Your task to perform on an android device: When is my next meeting? Image 0: 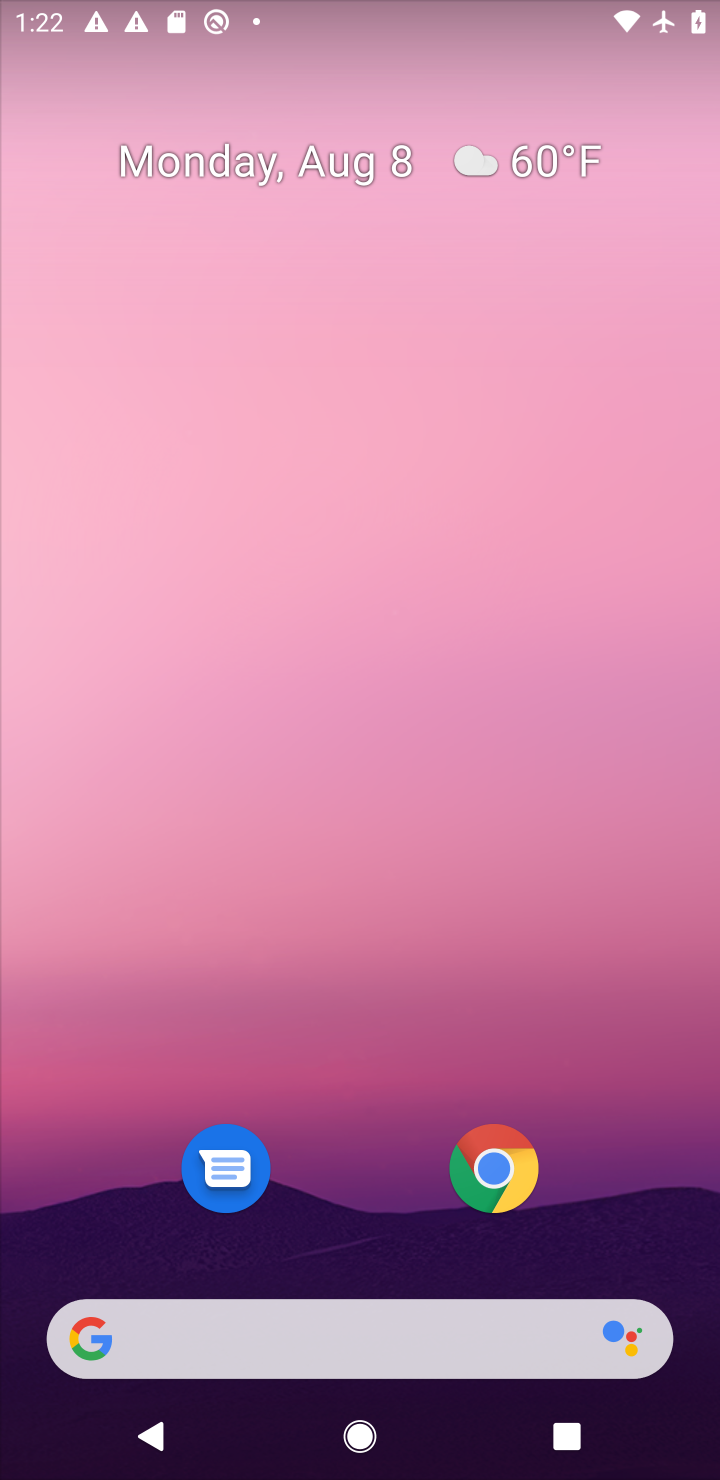
Step 0: drag from (388, 1293) to (314, 139)
Your task to perform on an android device: When is my next meeting? Image 1: 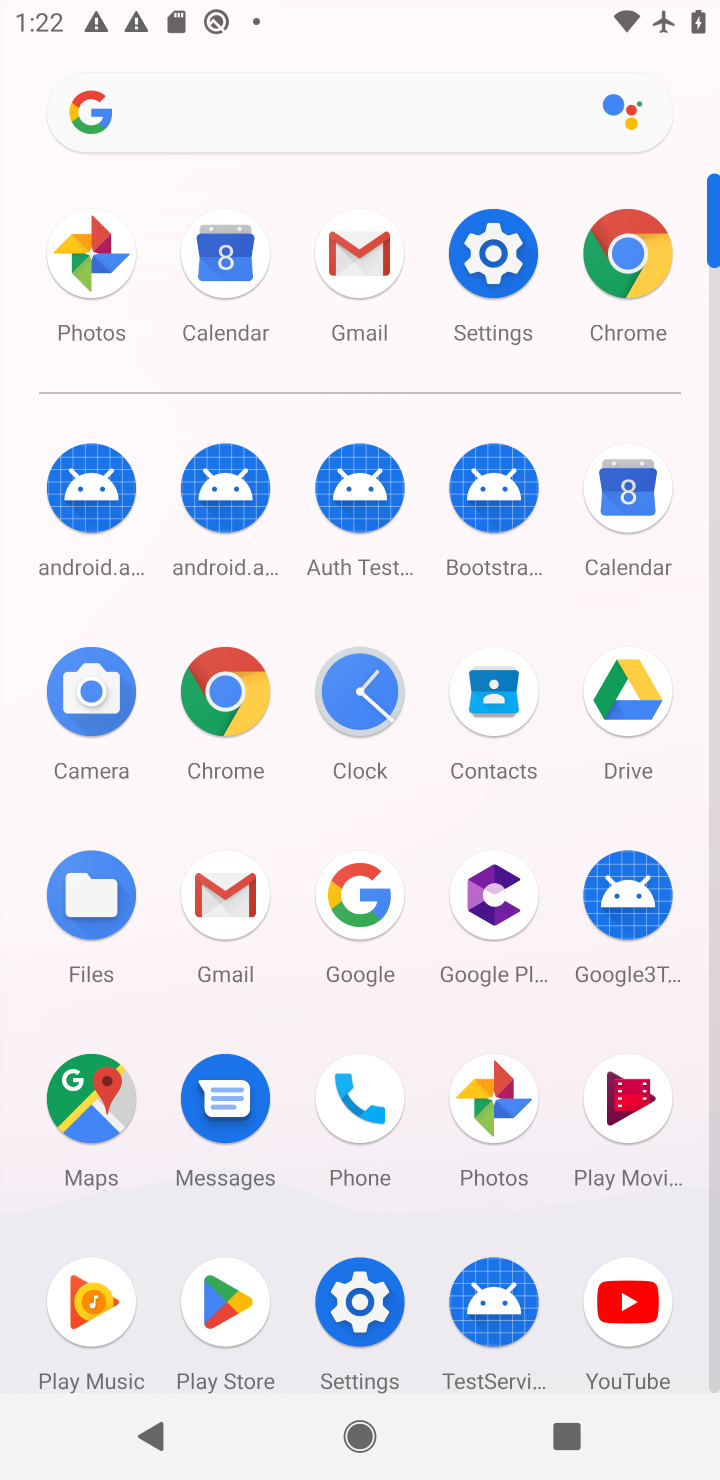
Step 1: click (501, 295)
Your task to perform on an android device: When is my next meeting? Image 2: 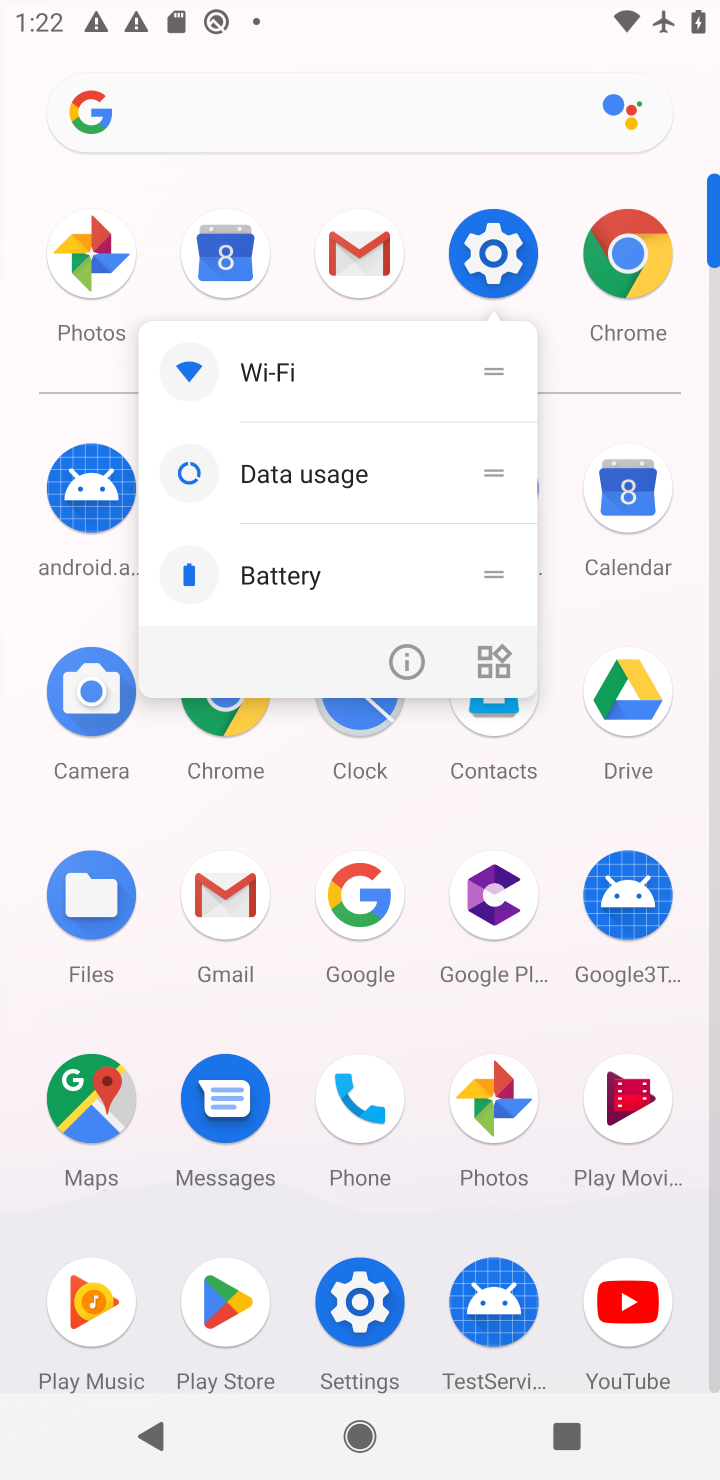
Step 2: click (501, 295)
Your task to perform on an android device: When is my next meeting? Image 3: 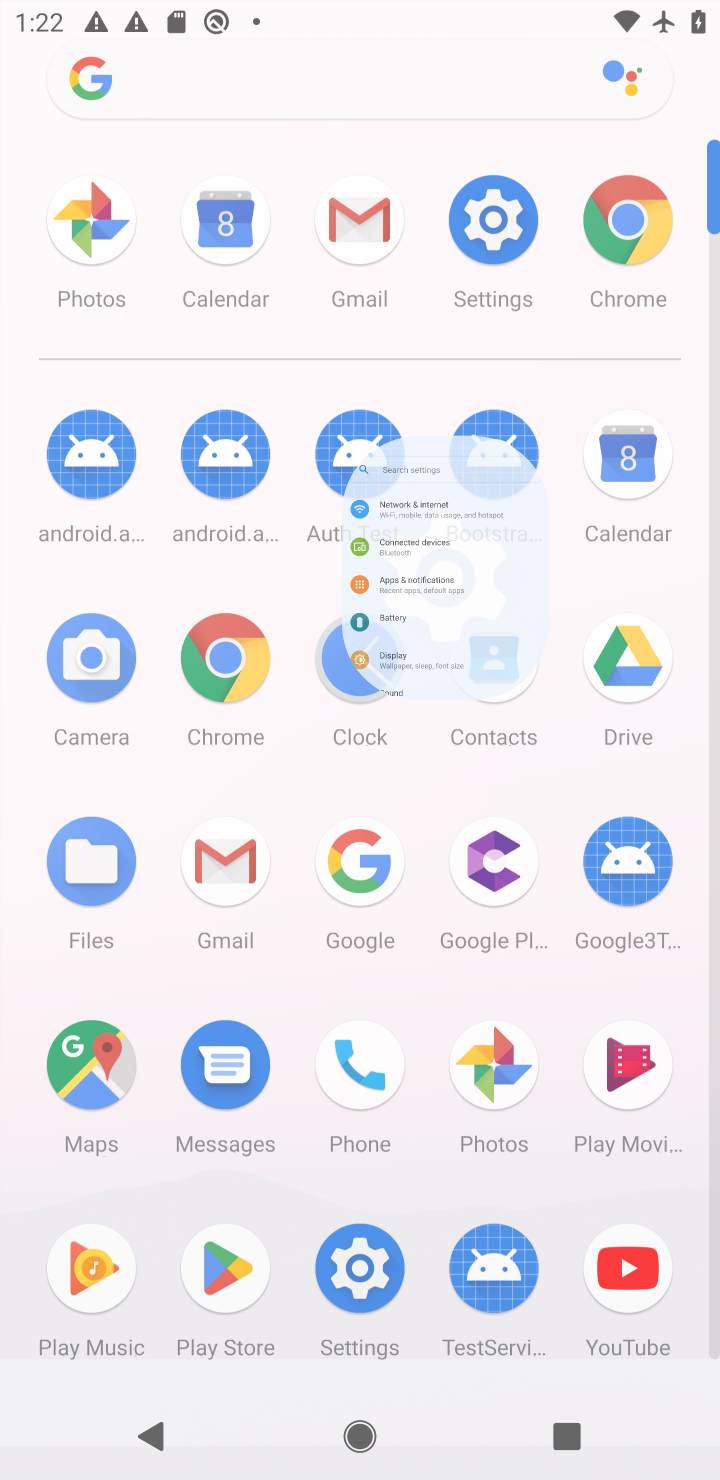
Step 3: task complete